Your task to perform on an android device: turn on sleep mode Image 0: 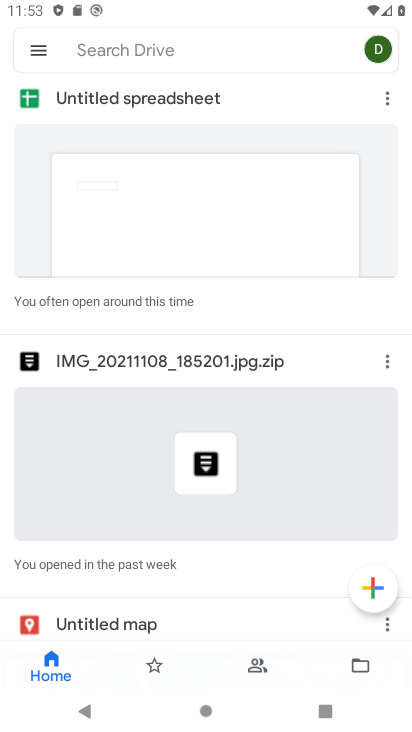
Step 0: press home button
Your task to perform on an android device: turn on sleep mode Image 1: 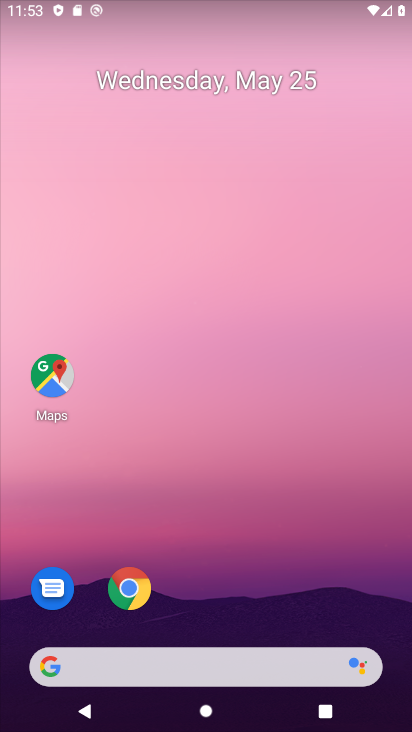
Step 1: drag from (205, 618) to (406, 35)
Your task to perform on an android device: turn on sleep mode Image 2: 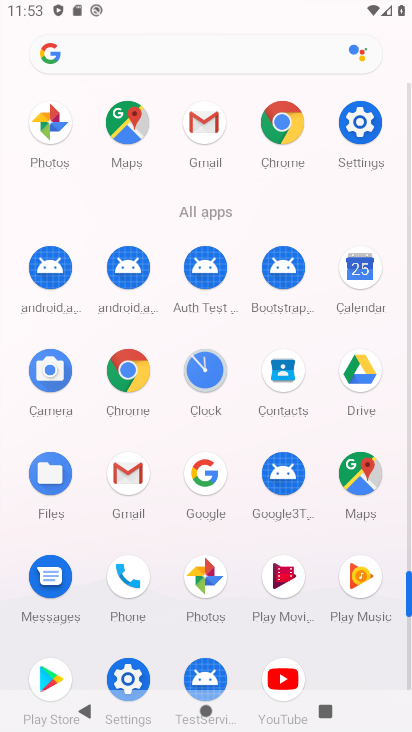
Step 2: click (132, 683)
Your task to perform on an android device: turn on sleep mode Image 3: 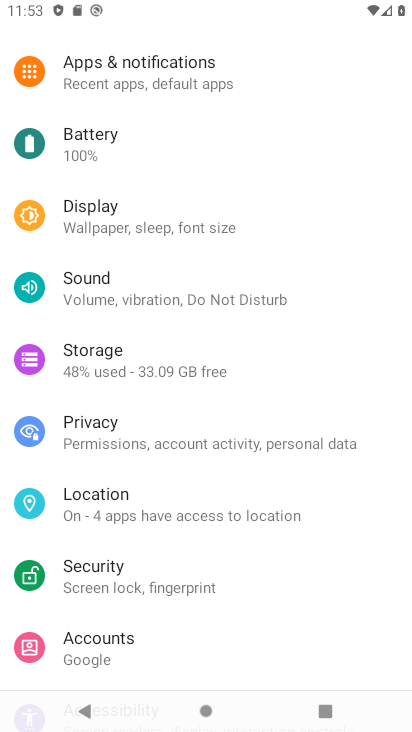
Step 3: click (145, 201)
Your task to perform on an android device: turn on sleep mode Image 4: 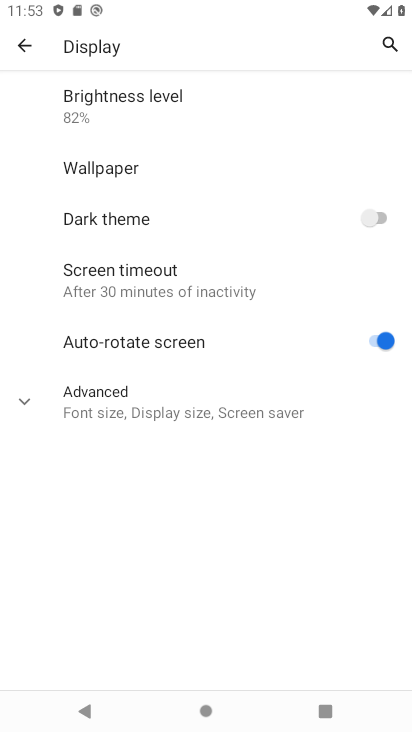
Step 4: click (192, 417)
Your task to perform on an android device: turn on sleep mode Image 5: 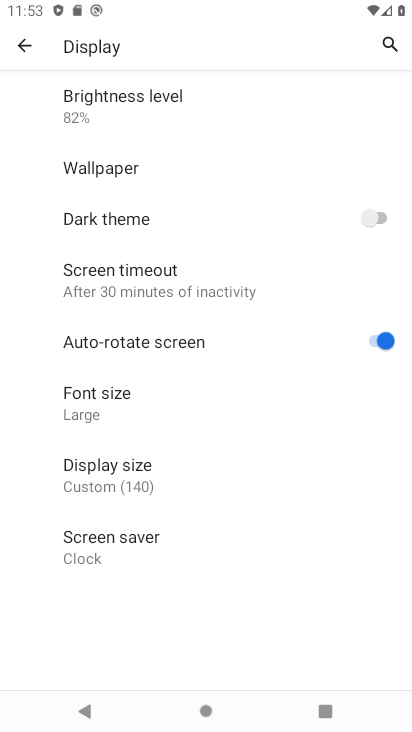
Step 5: task complete